Your task to perform on an android device: open chrome and create a bookmark for the current page Image 0: 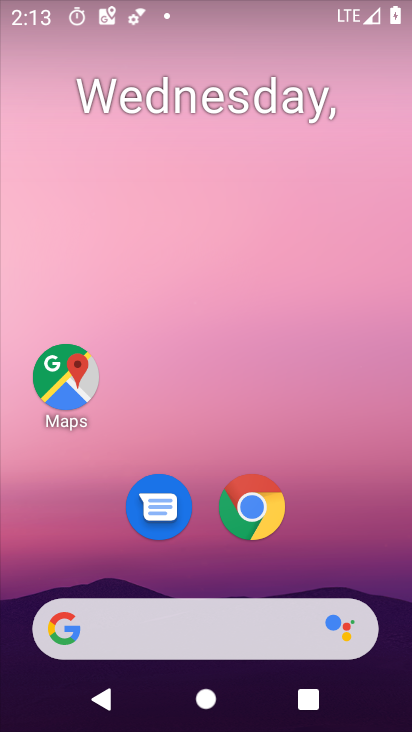
Step 0: click (251, 523)
Your task to perform on an android device: open chrome and create a bookmark for the current page Image 1: 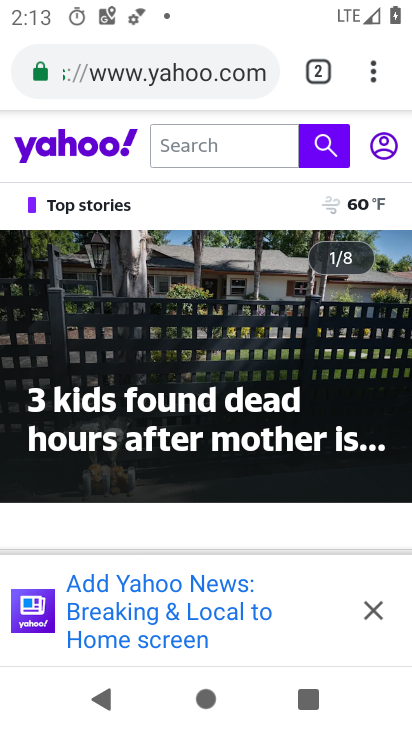
Step 1: click (364, 71)
Your task to perform on an android device: open chrome and create a bookmark for the current page Image 2: 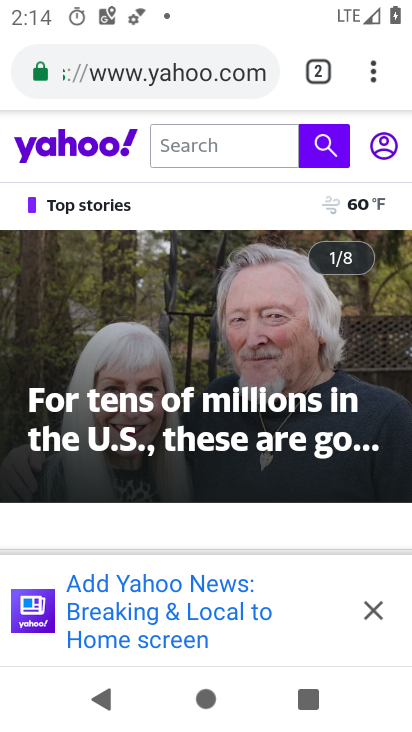
Step 2: click (378, 88)
Your task to perform on an android device: open chrome and create a bookmark for the current page Image 3: 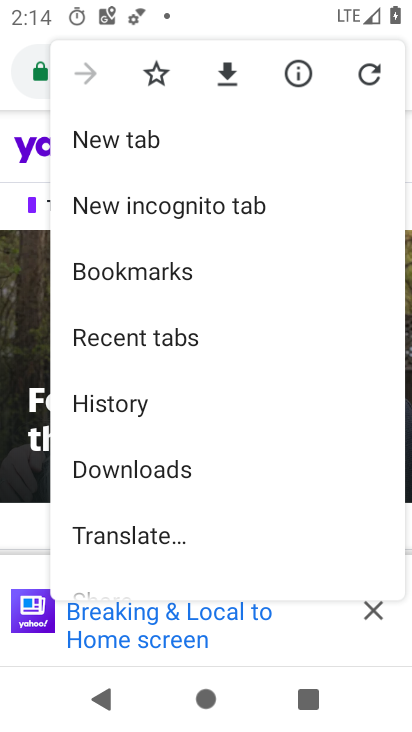
Step 3: click (152, 71)
Your task to perform on an android device: open chrome and create a bookmark for the current page Image 4: 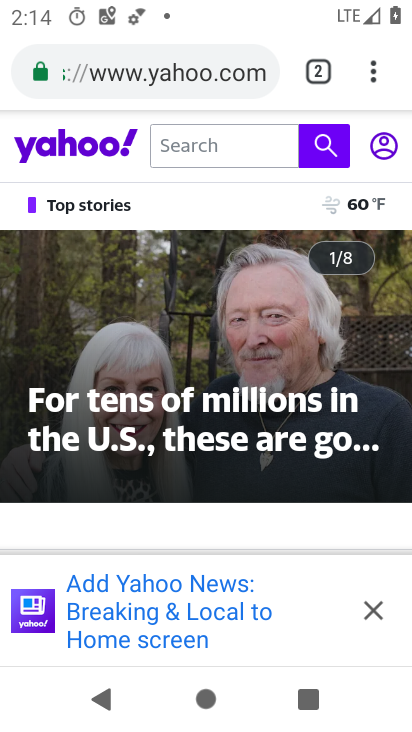
Step 4: task complete